Your task to perform on an android device: Turn off the flashlight Image 0: 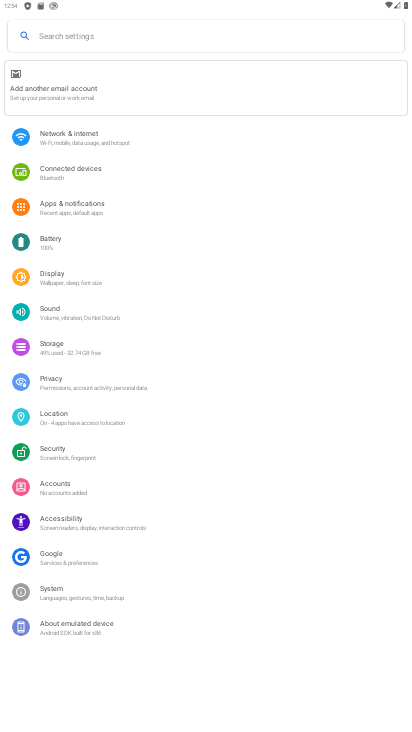
Step 0: drag from (201, 226) to (210, 535)
Your task to perform on an android device: Turn off the flashlight Image 1: 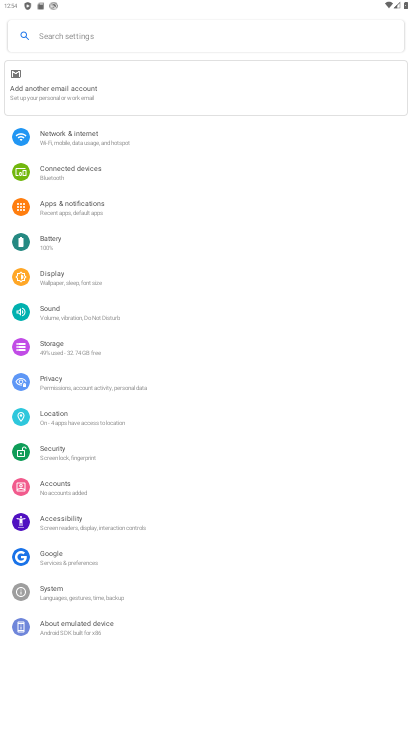
Step 1: task complete